Your task to perform on an android device: Go to Wikipedia Image 0: 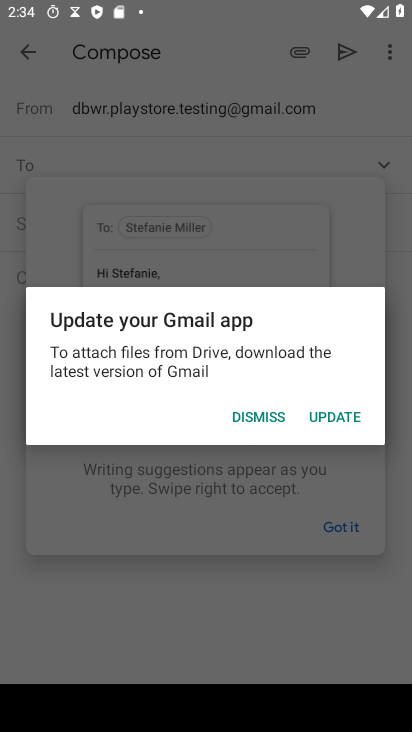
Step 0: press home button
Your task to perform on an android device: Go to Wikipedia Image 1: 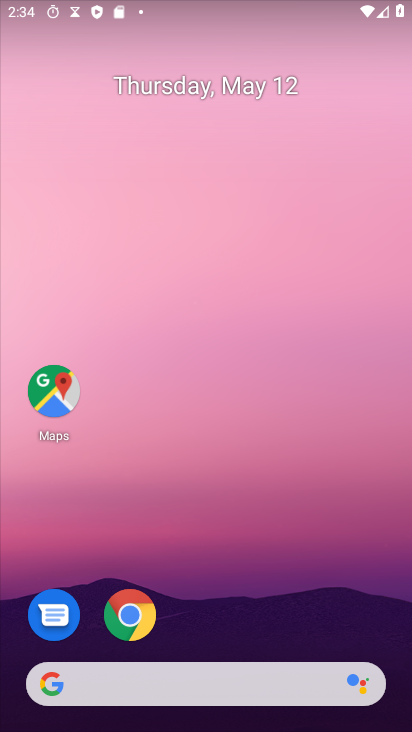
Step 1: drag from (22, 509) to (197, 110)
Your task to perform on an android device: Go to Wikipedia Image 2: 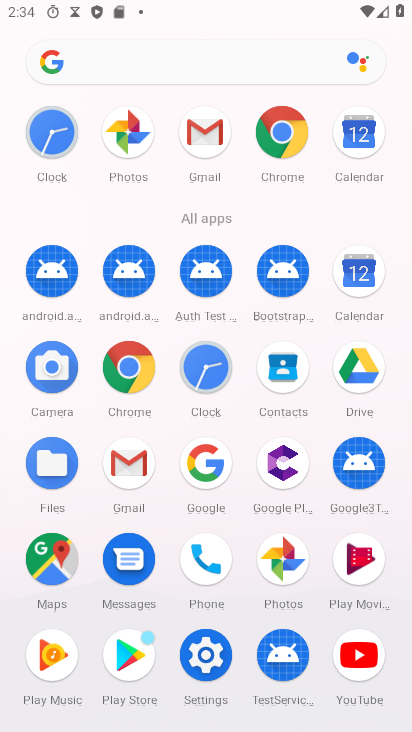
Step 2: click (273, 120)
Your task to perform on an android device: Go to Wikipedia Image 3: 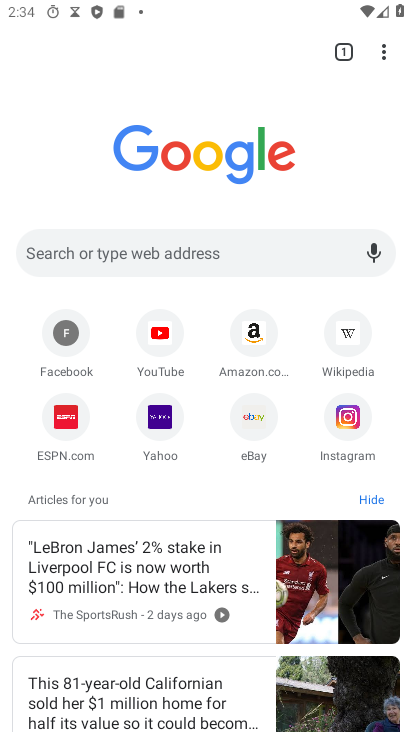
Step 3: click (338, 334)
Your task to perform on an android device: Go to Wikipedia Image 4: 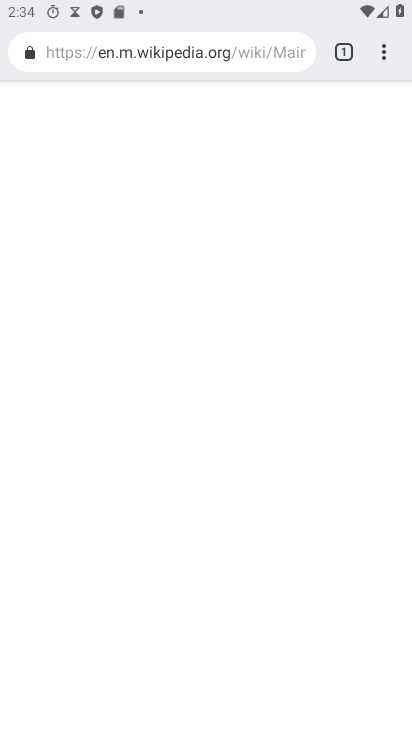
Step 4: task complete